Your task to perform on an android device: open app "Gmail" (install if not already installed) and go to login screen Image 0: 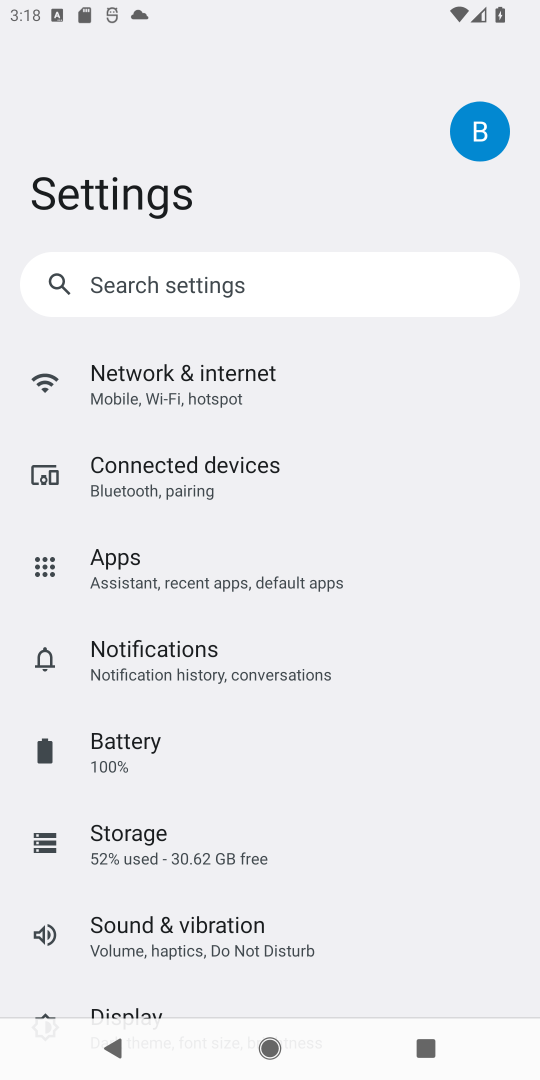
Step 0: press back button
Your task to perform on an android device: open app "Gmail" (install if not already installed) and go to login screen Image 1: 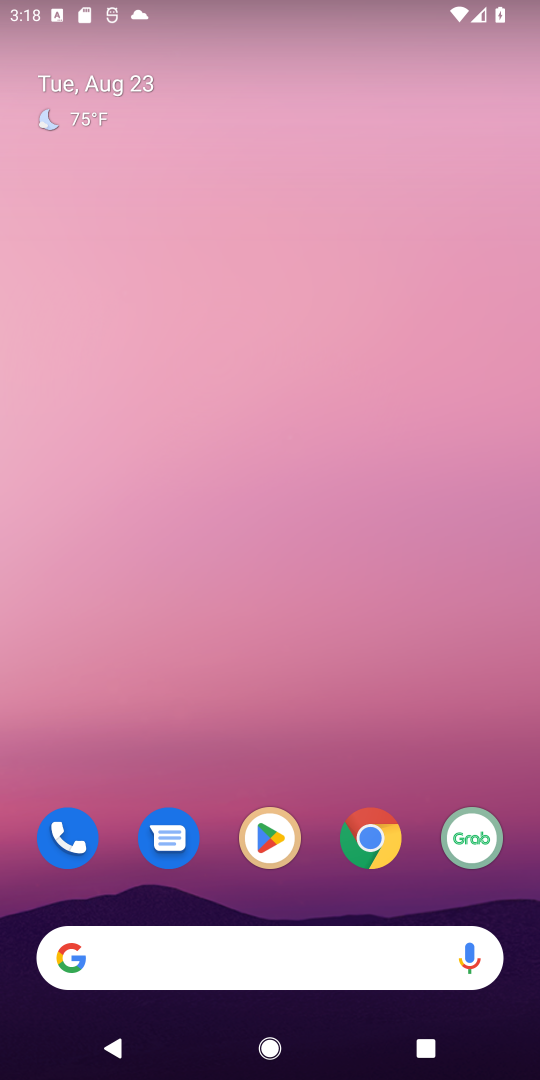
Step 1: press home button
Your task to perform on an android device: open app "Gmail" (install if not already installed) and go to login screen Image 2: 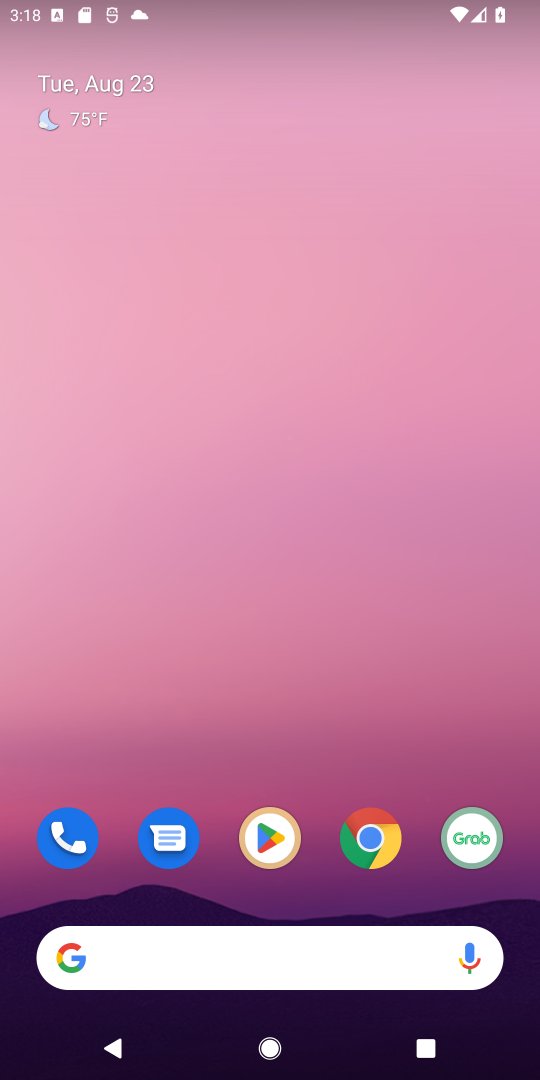
Step 2: drag from (274, 900) to (198, 151)
Your task to perform on an android device: open app "Gmail" (install if not already installed) and go to login screen Image 3: 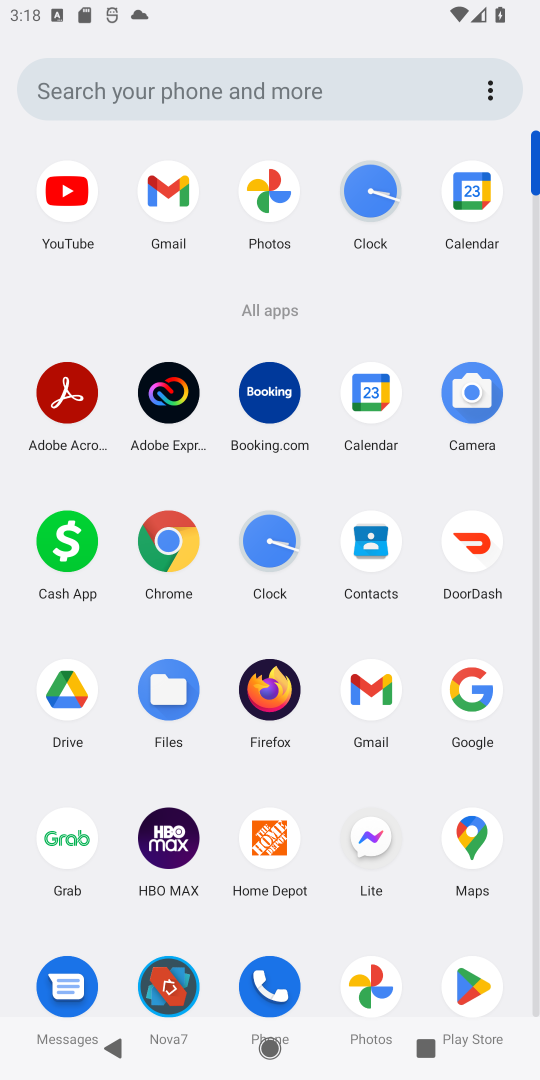
Step 3: click (365, 680)
Your task to perform on an android device: open app "Gmail" (install if not already installed) and go to login screen Image 4: 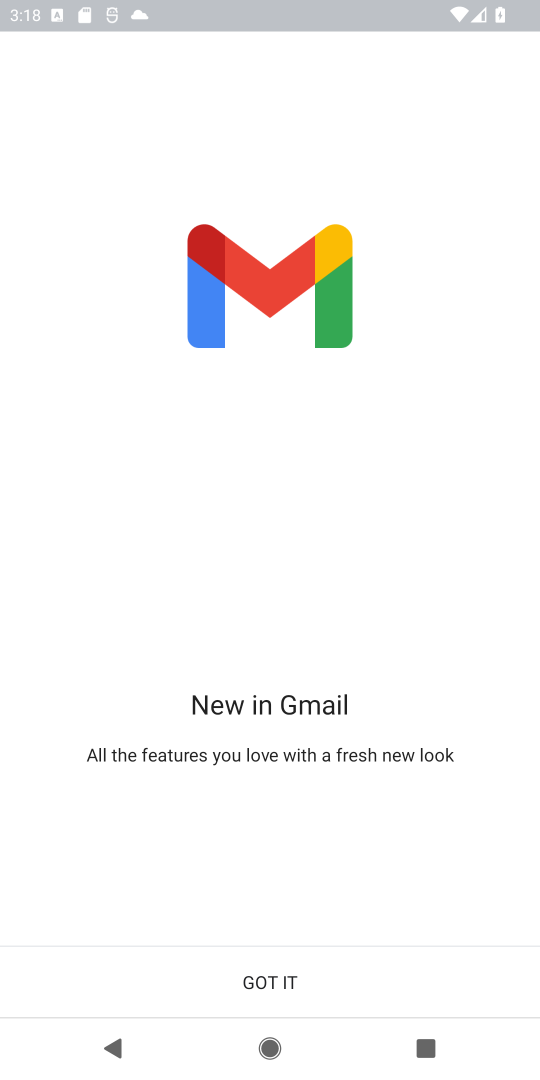
Step 4: click (307, 1003)
Your task to perform on an android device: open app "Gmail" (install if not already installed) and go to login screen Image 5: 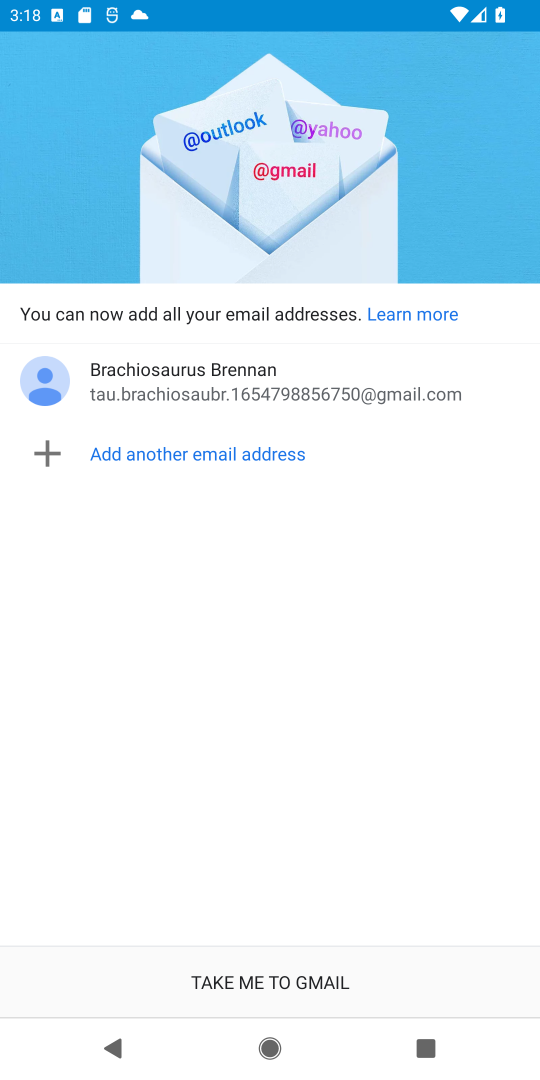
Step 5: click (304, 998)
Your task to perform on an android device: open app "Gmail" (install if not already installed) and go to login screen Image 6: 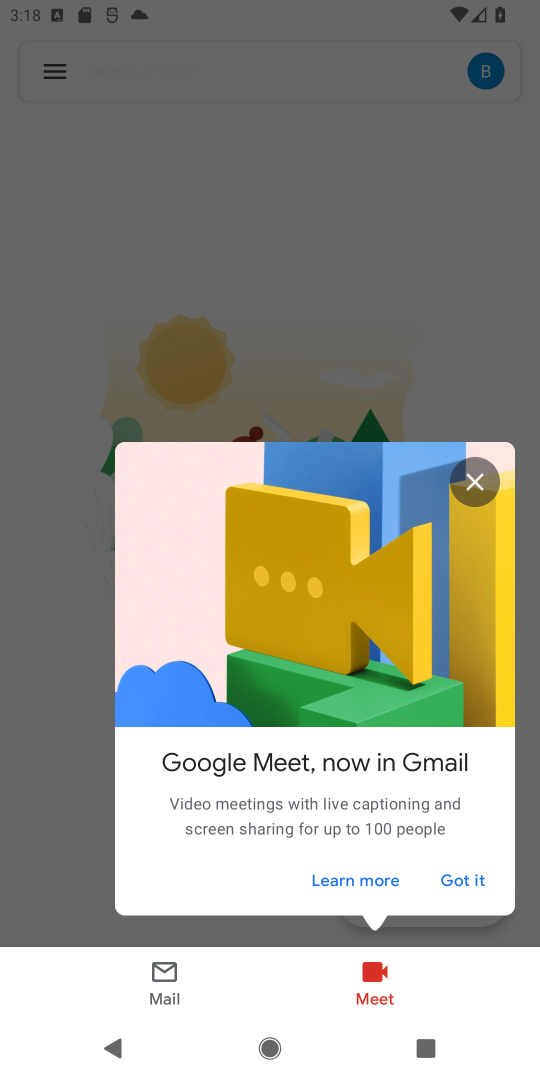
Step 6: click (452, 886)
Your task to perform on an android device: open app "Gmail" (install if not already installed) and go to login screen Image 7: 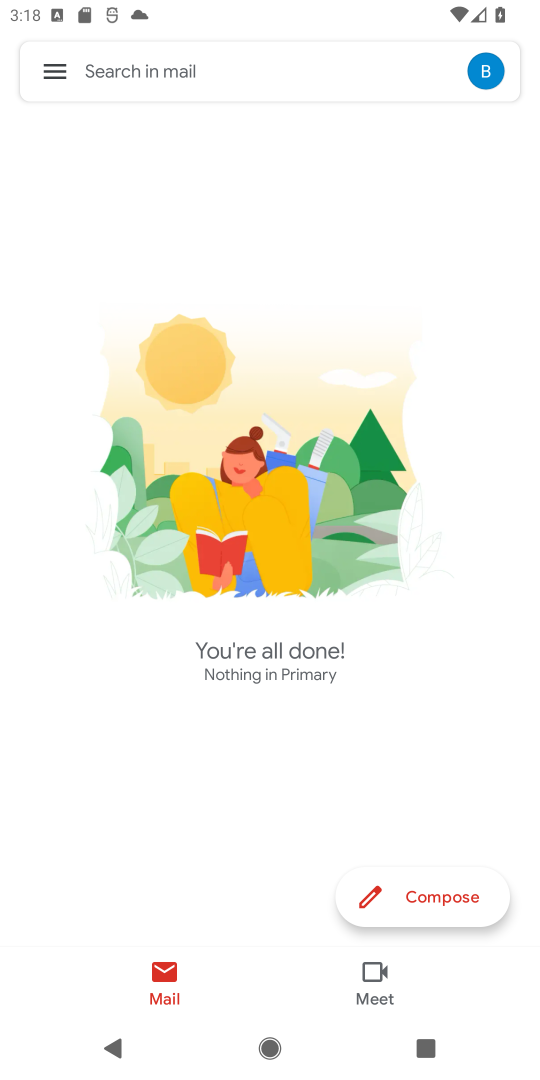
Step 7: click (46, 63)
Your task to perform on an android device: open app "Gmail" (install if not already installed) and go to login screen Image 8: 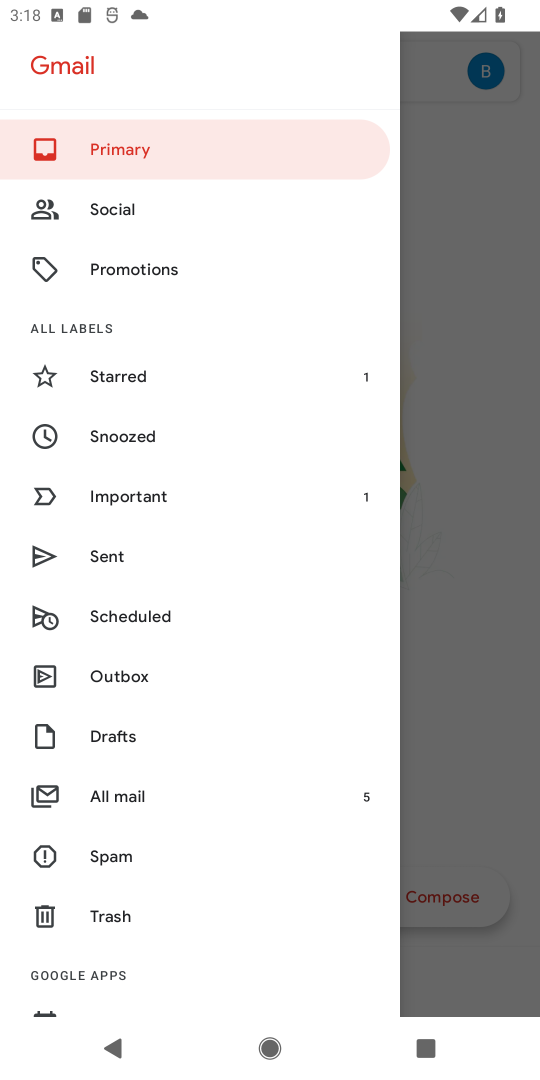
Step 8: click (485, 75)
Your task to perform on an android device: open app "Gmail" (install if not already installed) and go to login screen Image 9: 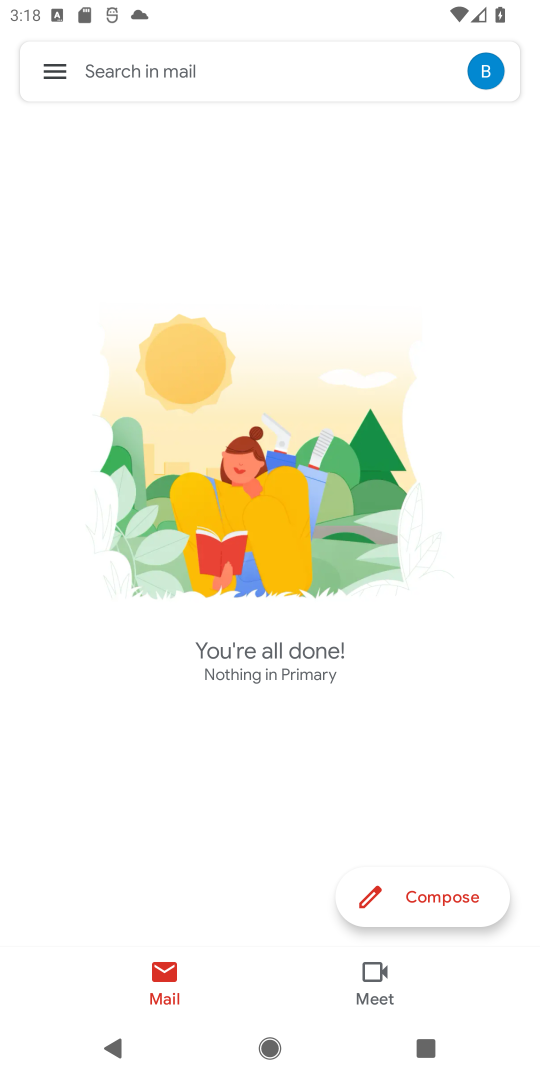
Step 9: click (485, 75)
Your task to perform on an android device: open app "Gmail" (install if not already installed) and go to login screen Image 10: 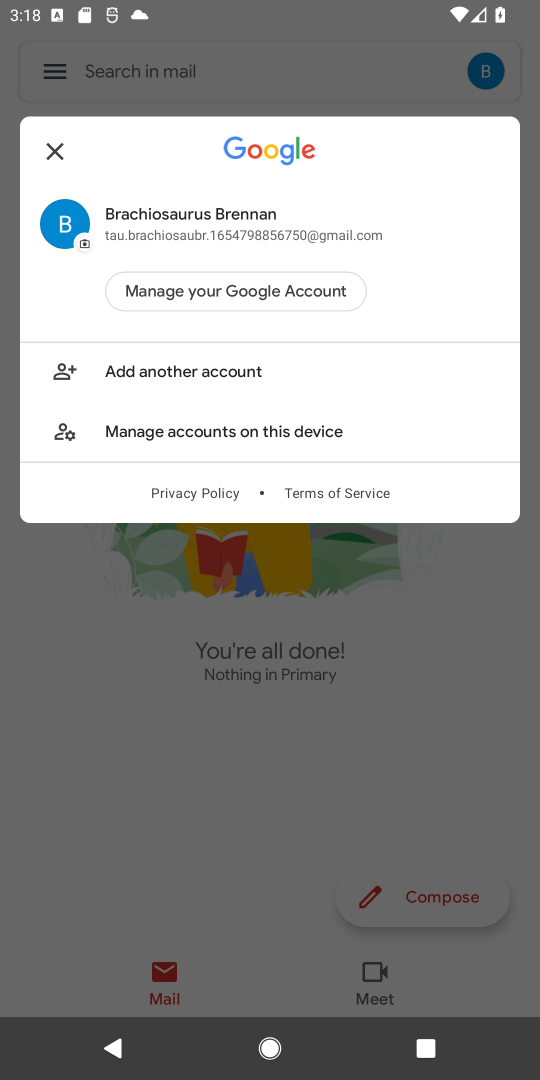
Step 10: click (153, 365)
Your task to perform on an android device: open app "Gmail" (install if not already installed) and go to login screen Image 11: 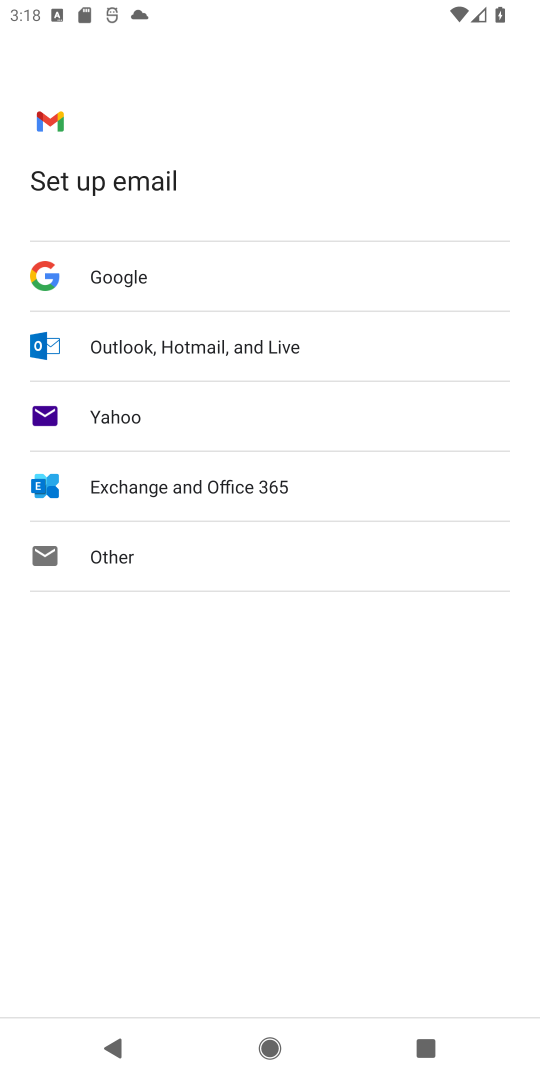
Step 11: task complete